Your task to perform on an android device: Open battery settings Image 0: 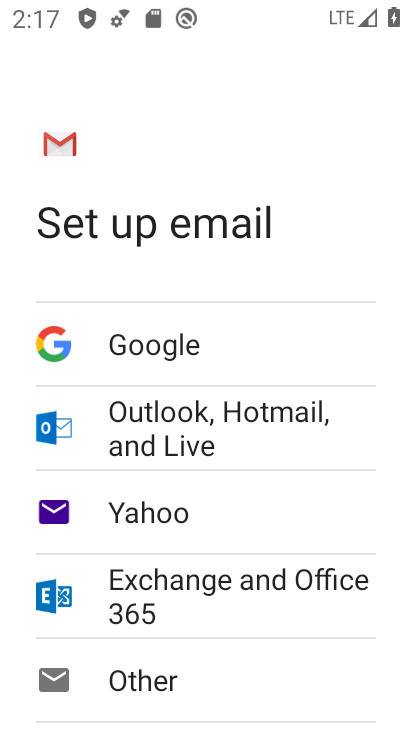
Step 0: press home button
Your task to perform on an android device: Open battery settings Image 1: 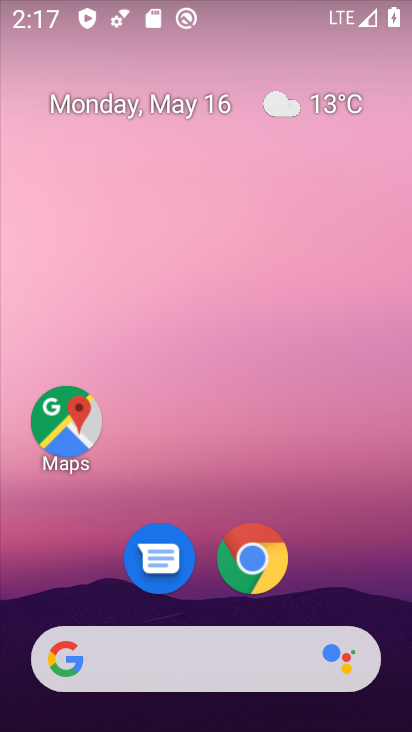
Step 1: drag from (175, 618) to (72, 17)
Your task to perform on an android device: Open battery settings Image 2: 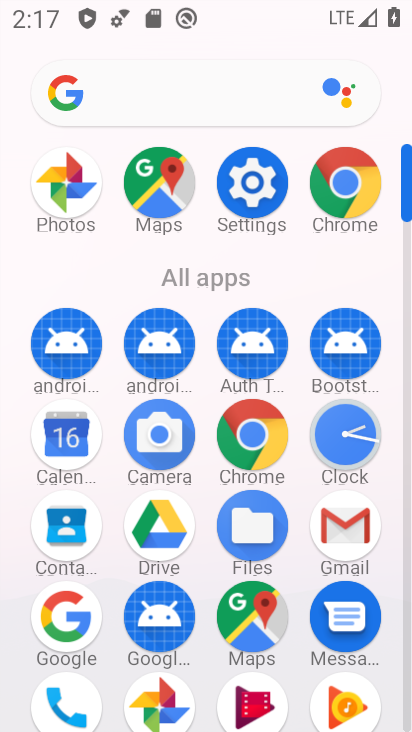
Step 2: click (249, 181)
Your task to perform on an android device: Open battery settings Image 3: 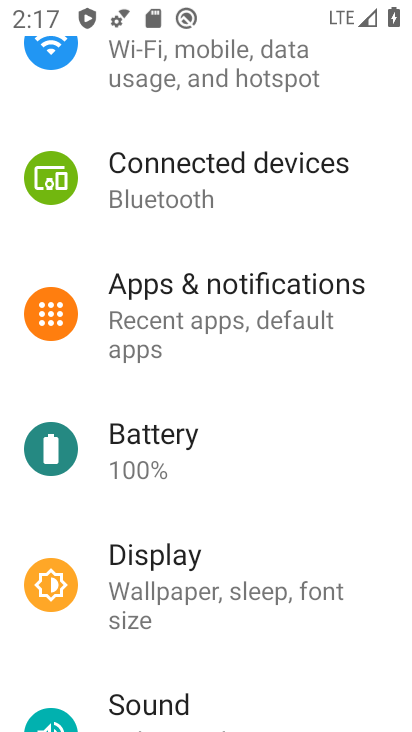
Step 3: click (139, 418)
Your task to perform on an android device: Open battery settings Image 4: 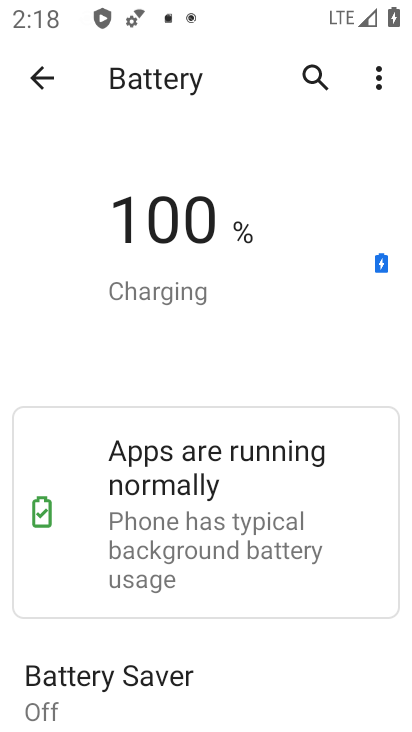
Step 4: task complete